Your task to perform on an android device: turn off airplane mode Image 0: 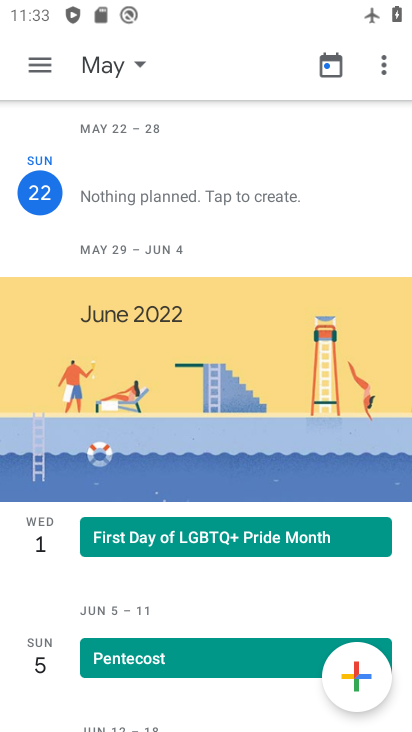
Step 0: press home button
Your task to perform on an android device: turn off airplane mode Image 1: 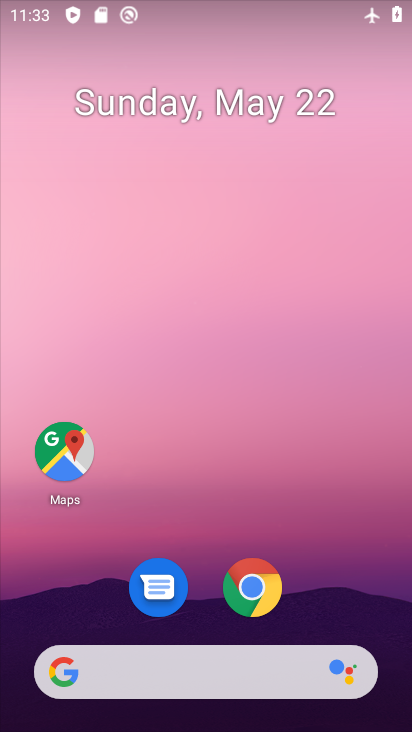
Step 1: drag from (218, 634) to (197, 48)
Your task to perform on an android device: turn off airplane mode Image 2: 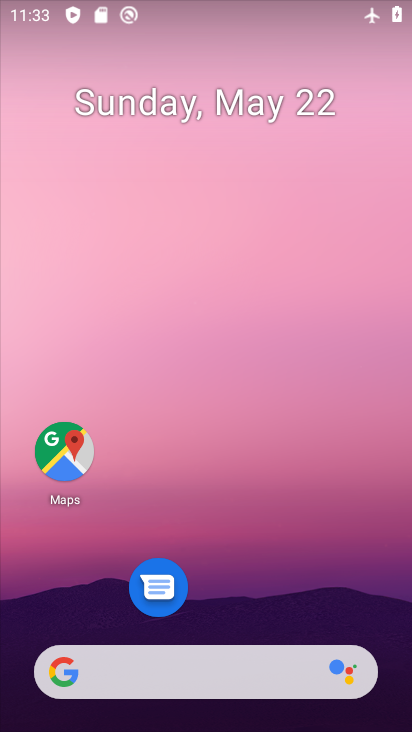
Step 2: drag from (238, 632) to (199, 0)
Your task to perform on an android device: turn off airplane mode Image 3: 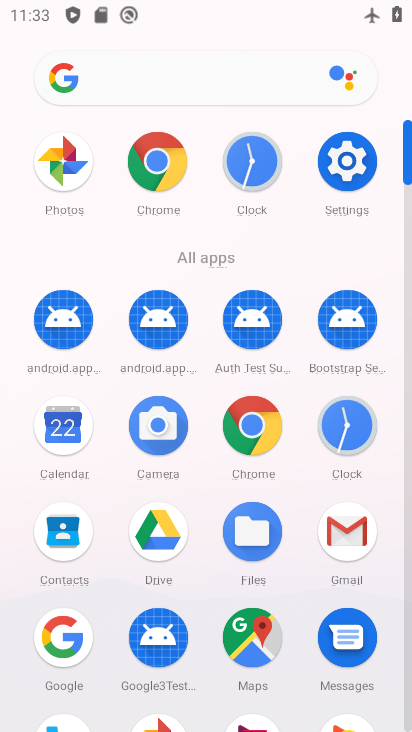
Step 3: click (330, 150)
Your task to perform on an android device: turn off airplane mode Image 4: 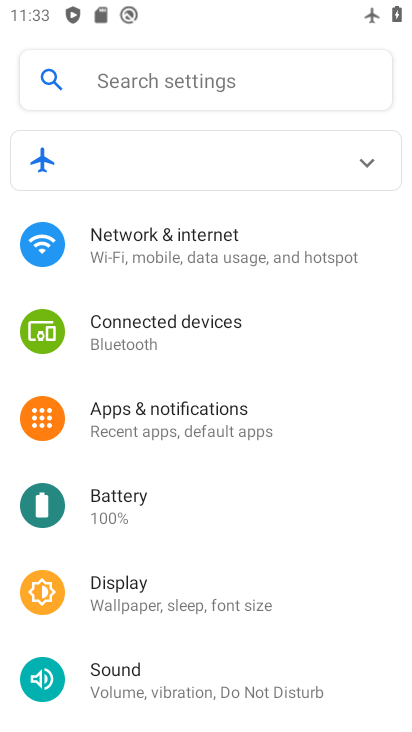
Step 4: click (267, 240)
Your task to perform on an android device: turn off airplane mode Image 5: 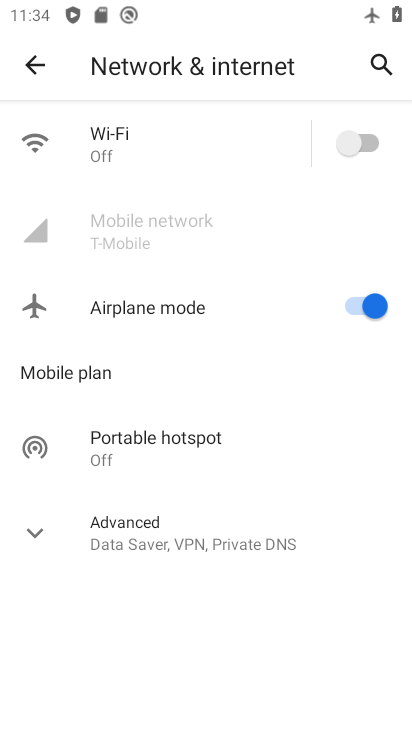
Step 5: click (338, 318)
Your task to perform on an android device: turn off airplane mode Image 6: 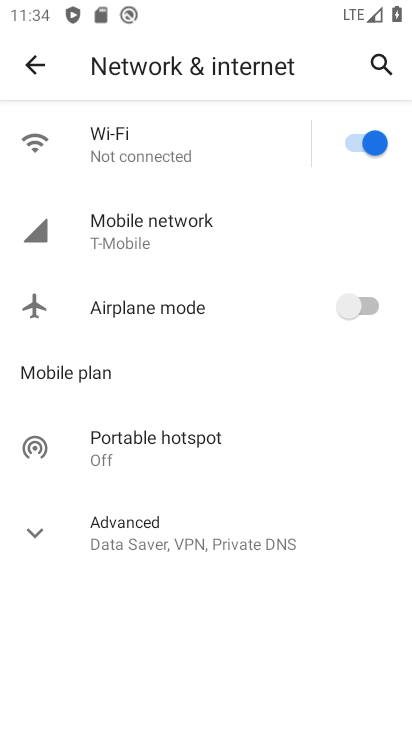
Step 6: task complete